Your task to perform on an android device: Open Yahoo.com Image 0: 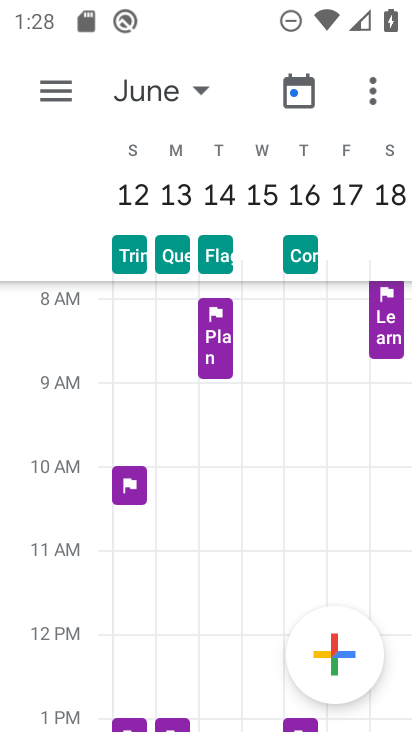
Step 0: press home button
Your task to perform on an android device: Open Yahoo.com Image 1: 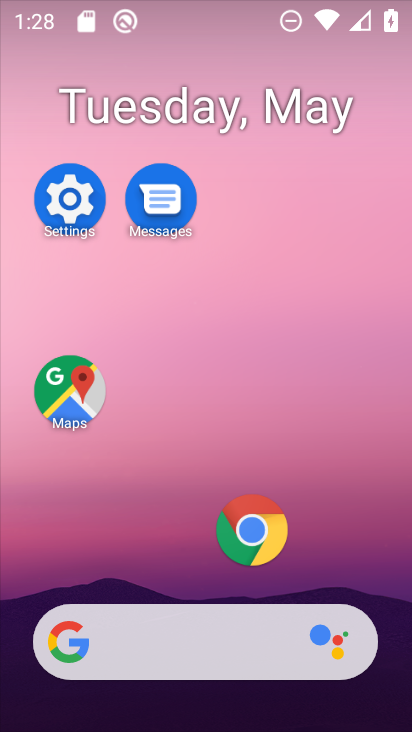
Step 1: drag from (172, 562) to (240, 169)
Your task to perform on an android device: Open Yahoo.com Image 2: 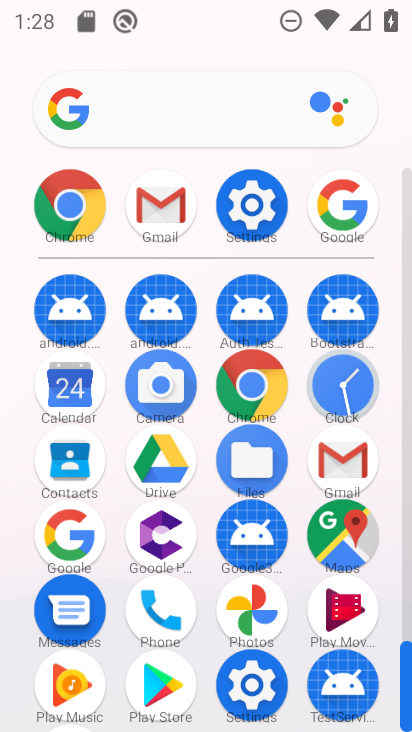
Step 2: click (256, 392)
Your task to perform on an android device: Open Yahoo.com Image 3: 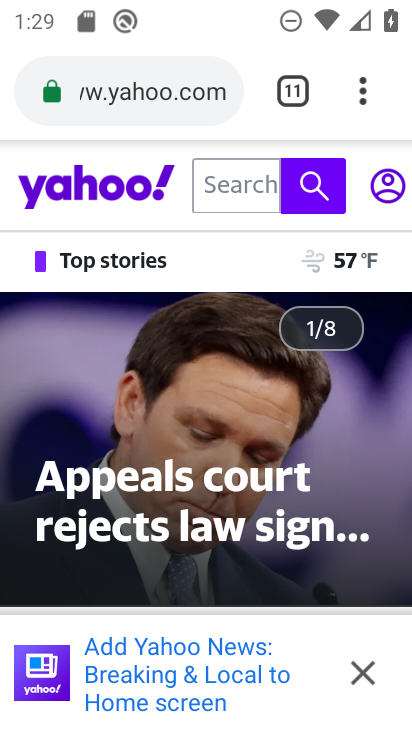
Step 3: task complete